Your task to perform on an android device: turn on the 12-hour format for clock Image 0: 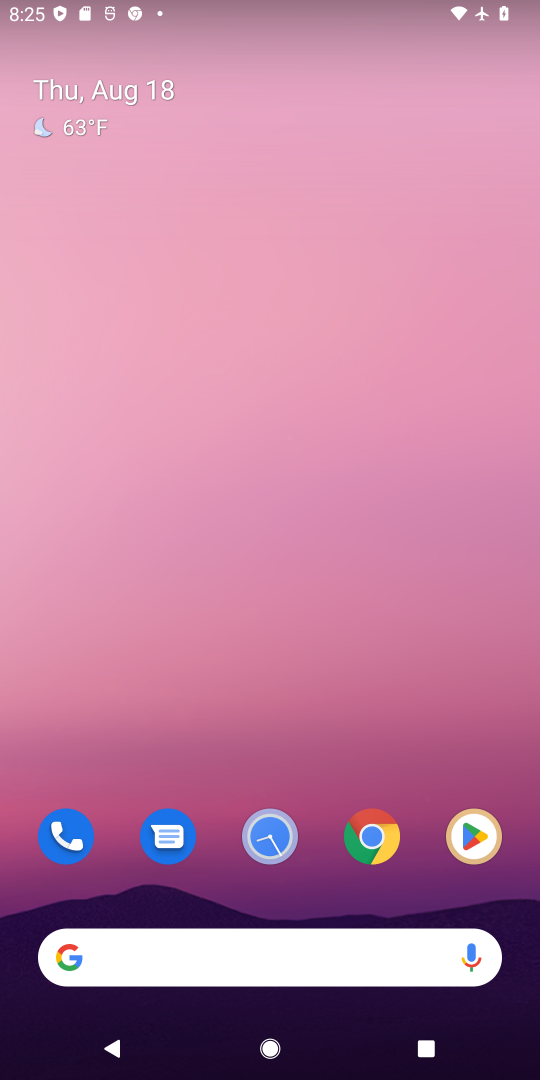
Step 0: click (517, 727)
Your task to perform on an android device: turn on the 12-hour format for clock Image 1: 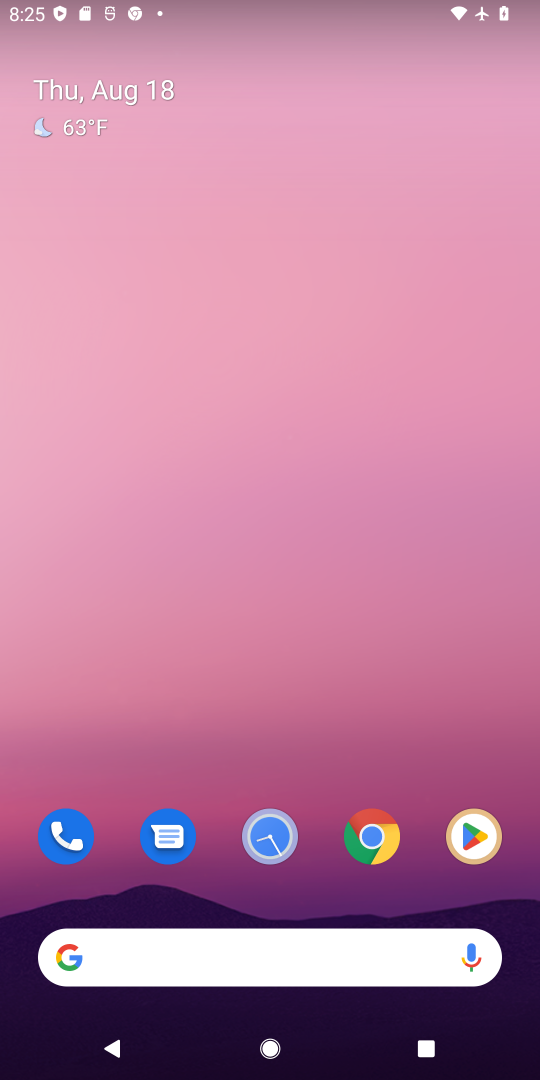
Step 1: drag from (408, 869) to (399, 121)
Your task to perform on an android device: turn on the 12-hour format for clock Image 2: 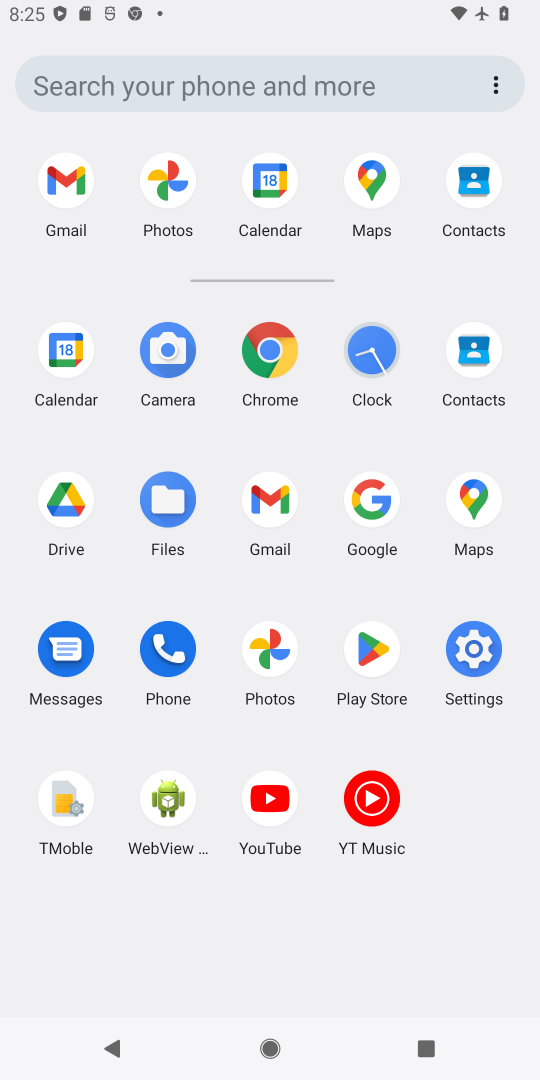
Step 2: click (377, 344)
Your task to perform on an android device: turn on the 12-hour format for clock Image 3: 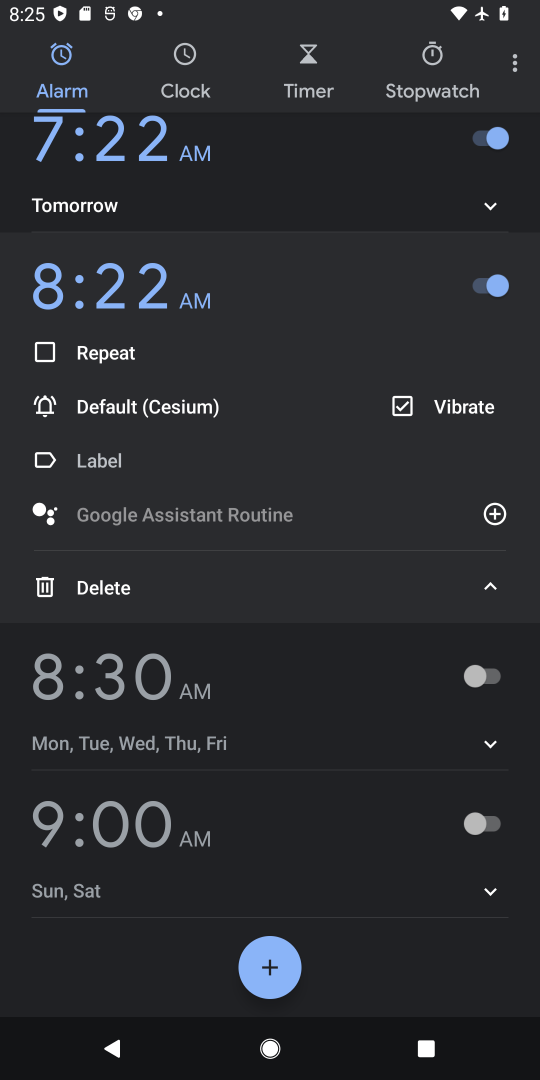
Step 3: click (518, 59)
Your task to perform on an android device: turn on the 12-hour format for clock Image 4: 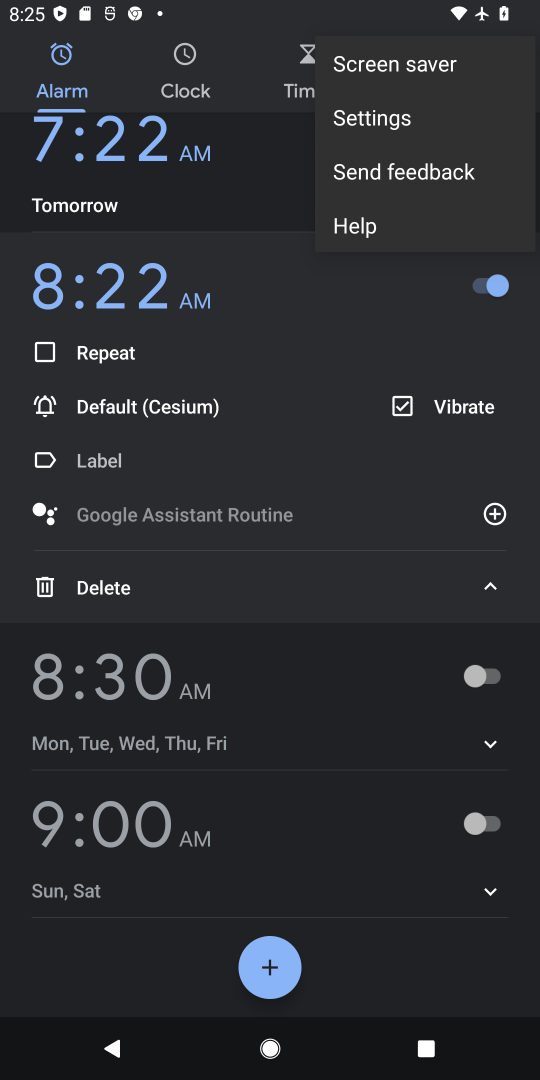
Step 4: click (359, 129)
Your task to perform on an android device: turn on the 12-hour format for clock Image 5: 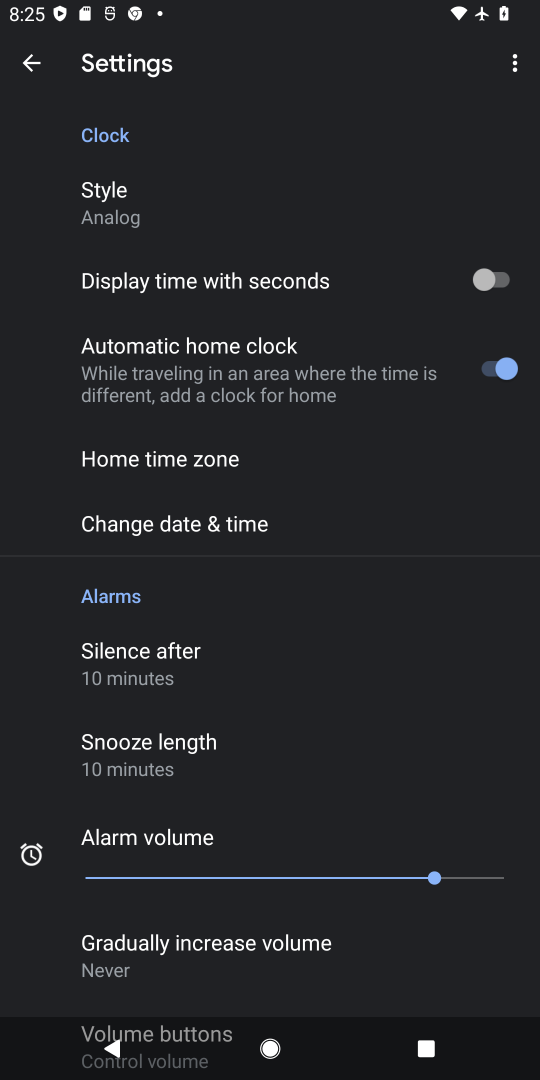
Step 5: click (183, 526)
Your task to perform on an android device: turn on the 12-hour format for clock Image 6: 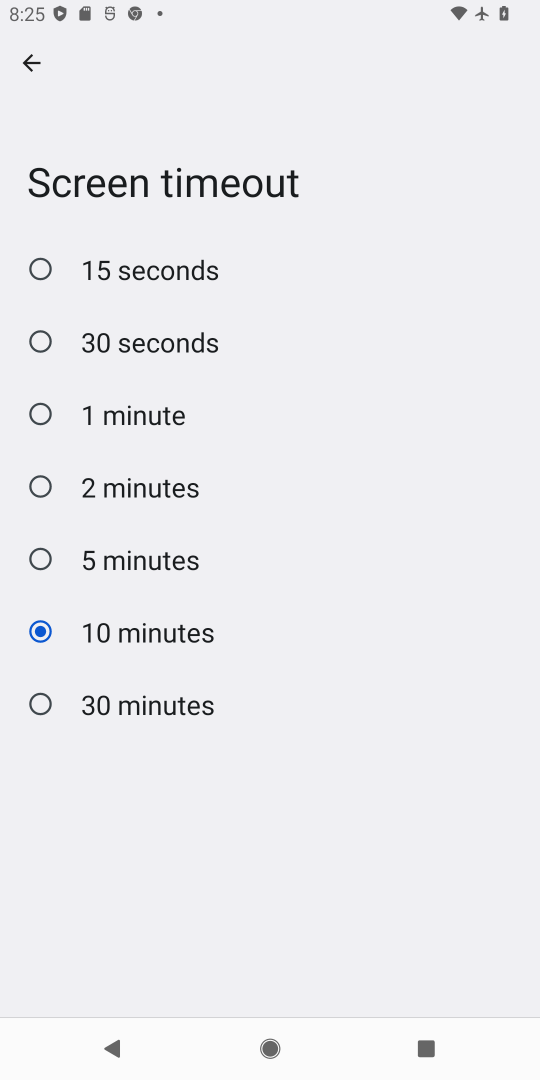
Step 6: press back button
Your task to perform on an android device: turn on the 12-hour format for clock Image 7: 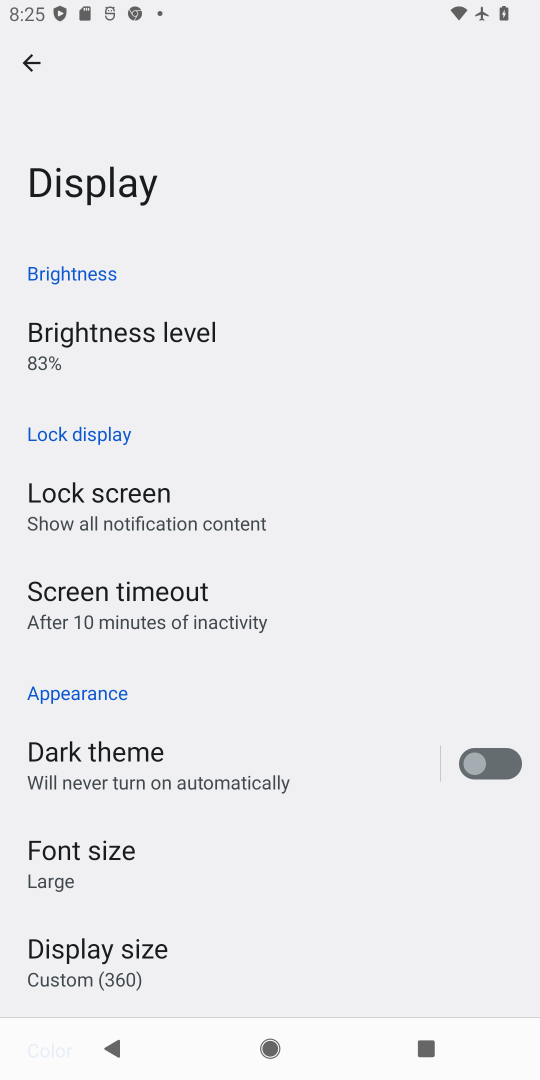
Step 7: press back button
Your task to perform on an android device: turn on the 12-hour format for clock Image 8: 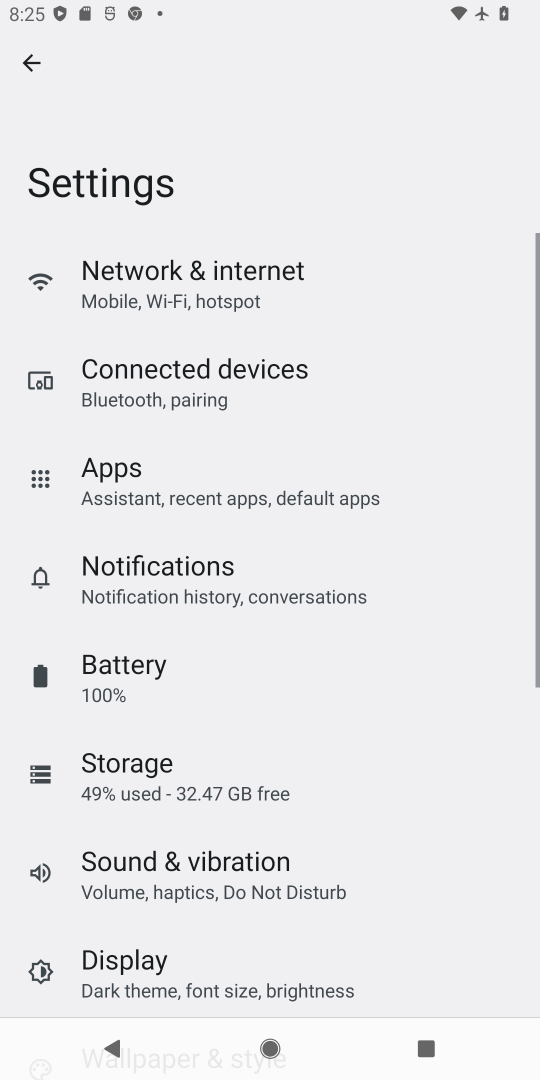
Step 8: press back button
Your task to perform on an android device: turn on the 12-hour format for clock Image 9: 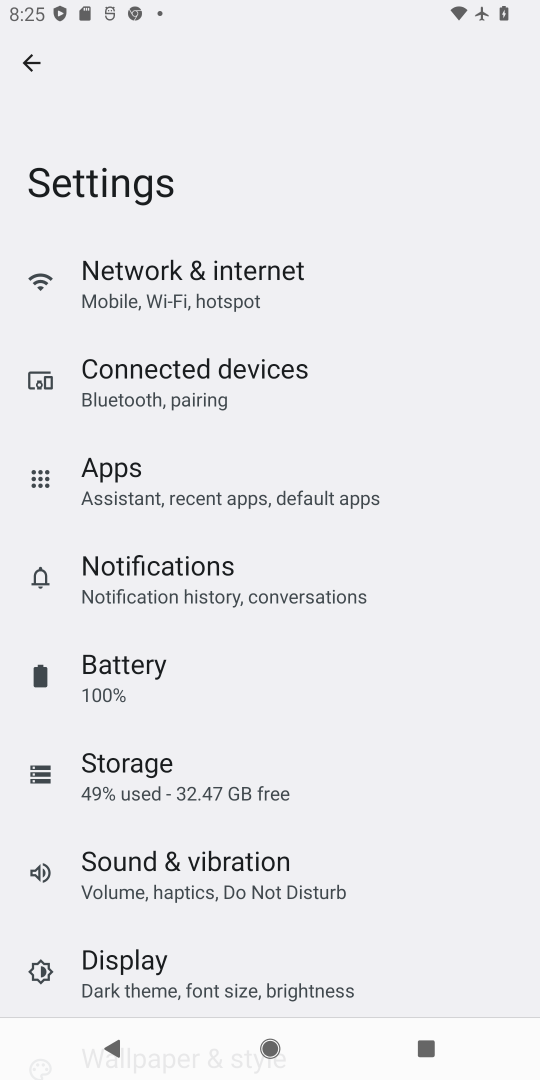
Step 9: press back button
Your task to perform on an android device: turn on the 12-hour format for clock Image 10: 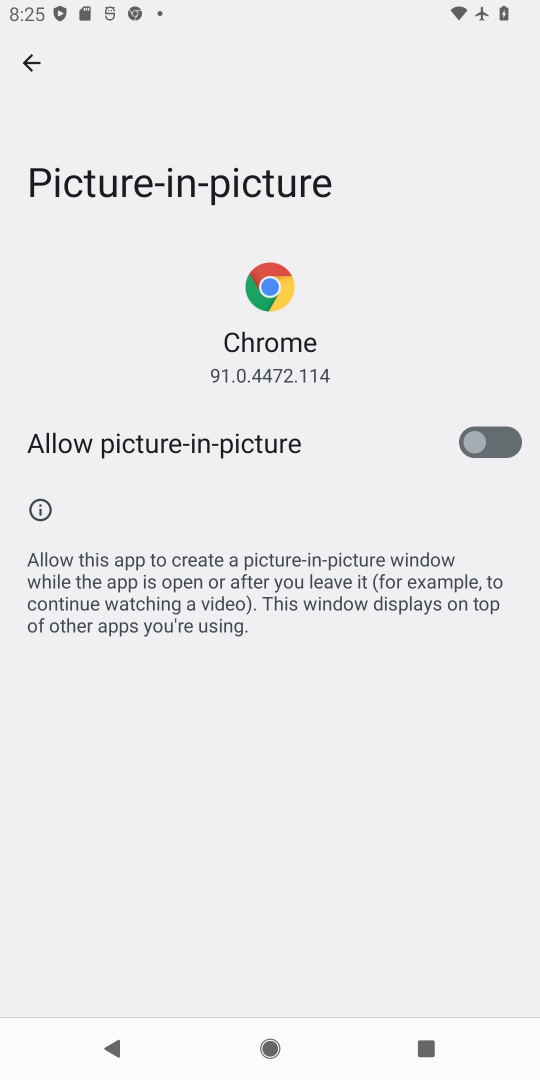
Step 10: press back button
Your task to perform on an android device: turn on the 12-hour format for clock Image 11: 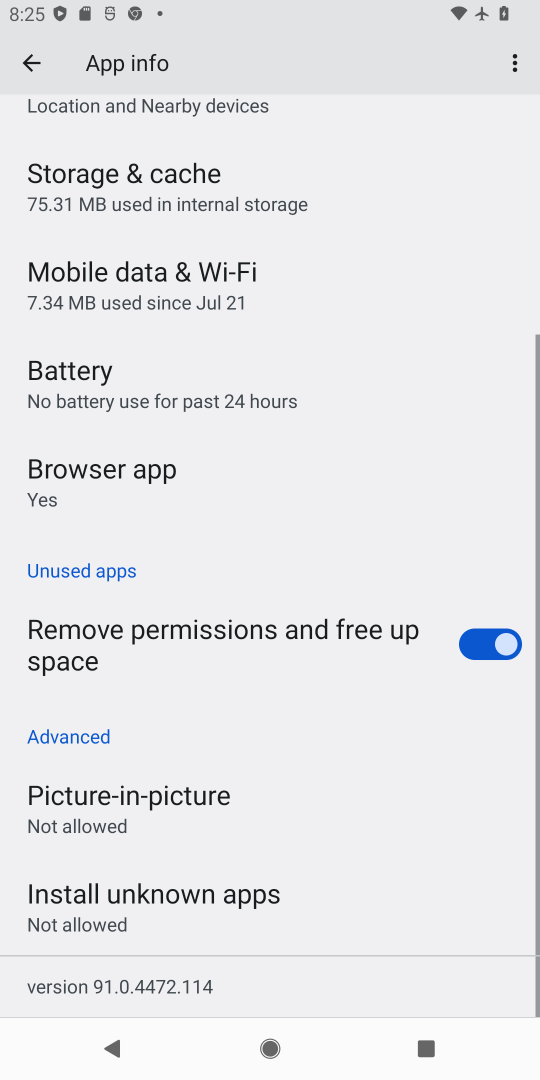
Step 11: press back button
Your task to perform on an android device: turn on the 12-hour format for clock Image 12: 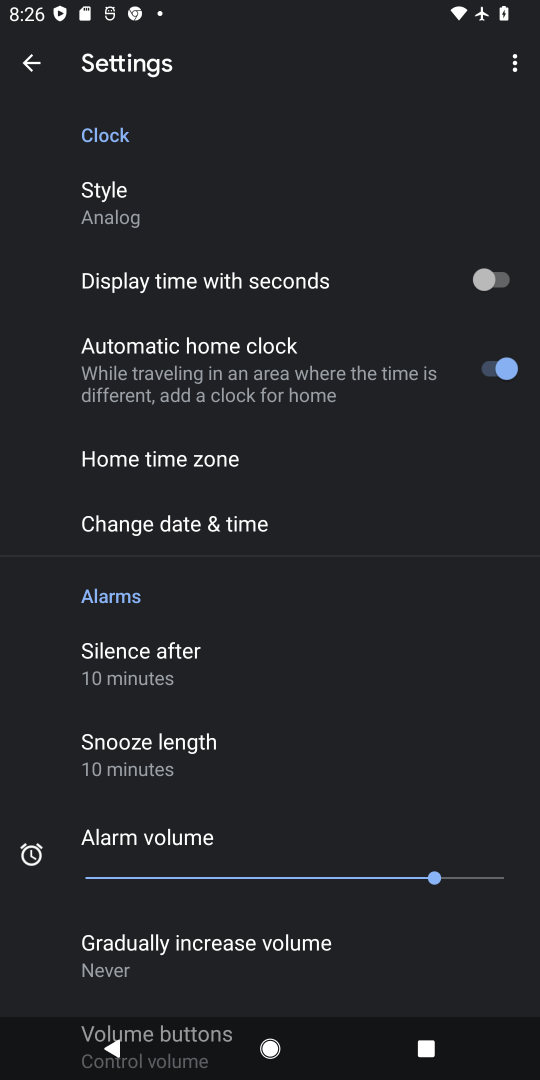
Step 12: click (152, 527)
Your task to perform on an android device: turn on the 12-hour format for clock Image 13: 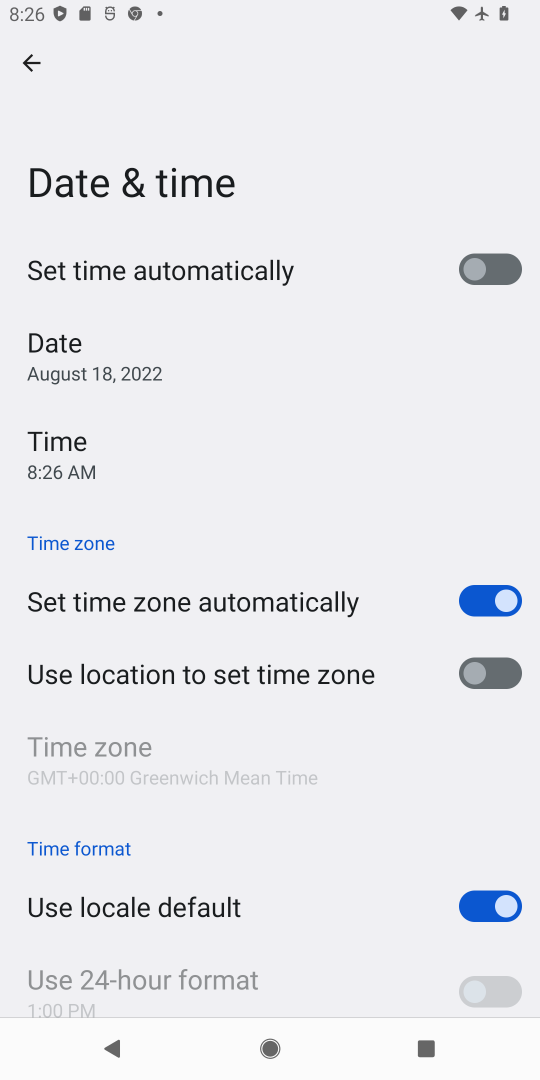
Step 13: task complete